Your task to perform on an android device: delete a single message in the gmail app Image 0: 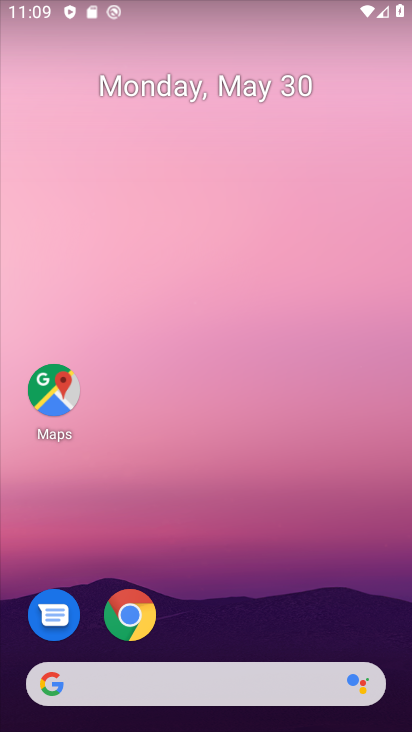
Step 0: drag from (346, 613) to (341, 98)
Your task to perform on an android device: delete a single message in the gmail app Image 1: 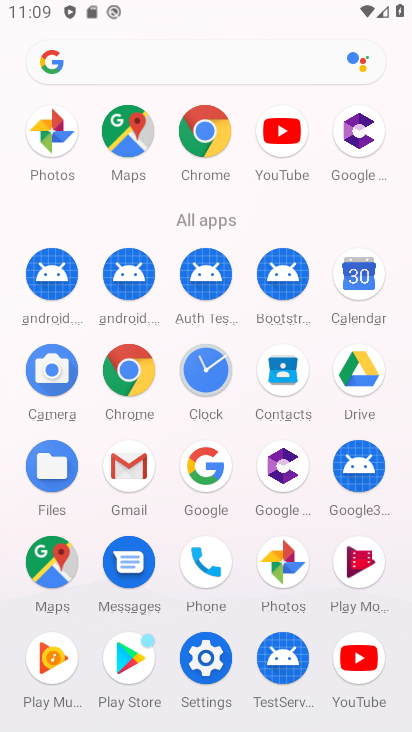
Step 1: click (113, 459)
Your task to perform on an android device: delete a single message in the gmail app Image 2: 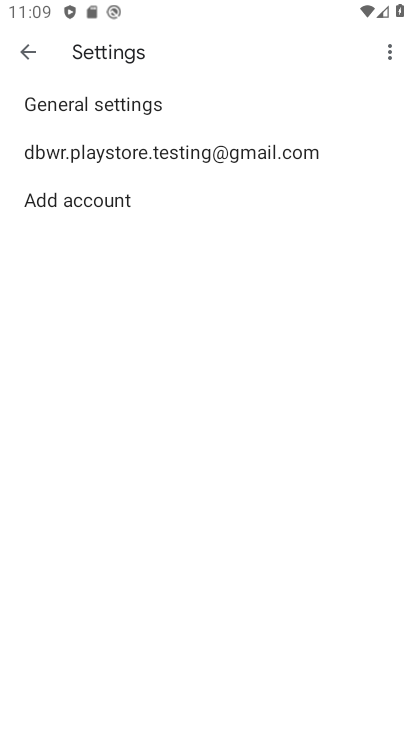
Step 2: click (30, 46)
Your task to perform on an android device: delete a single message in the gmail app Image 3: 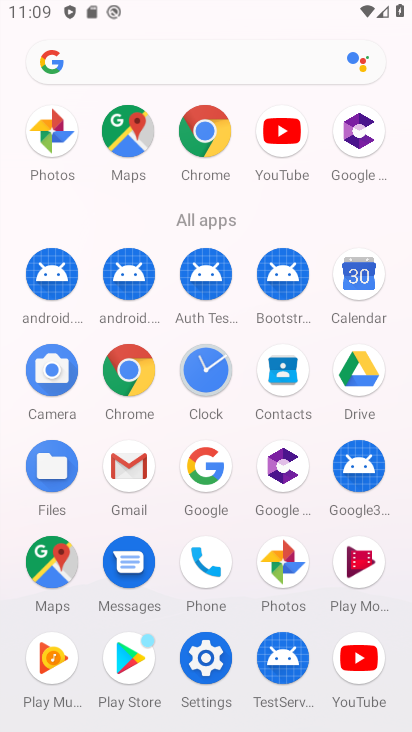
Step 3: click (137, 468)
Your task to perform on an android device: delete a single message in the gmail app Image 4: 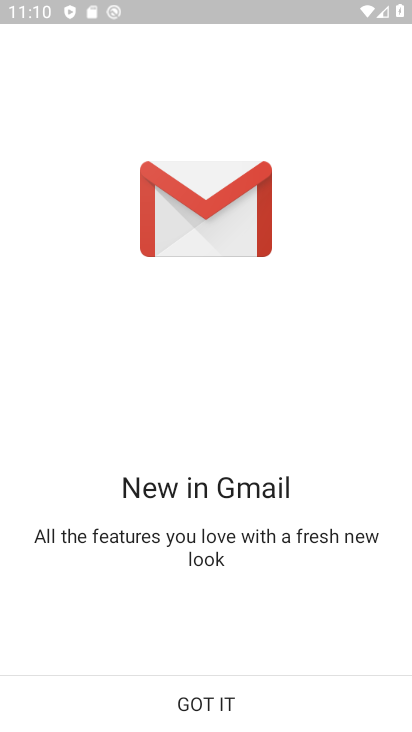
Step 4: click (237, 691)
Your task to perform on an android device: delete a single message in the gmail app Image 5: 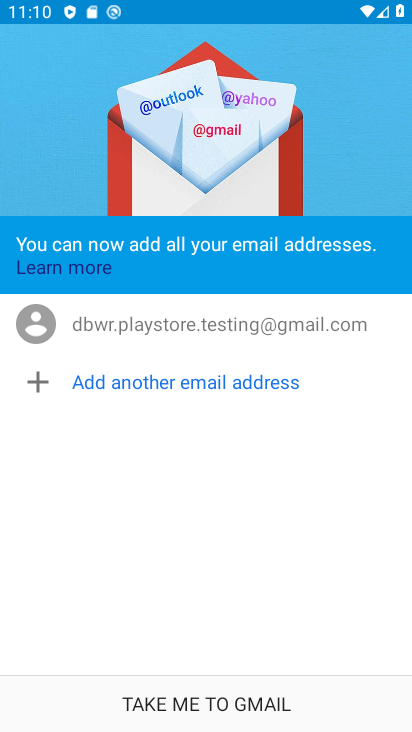
Step 5: click (262, 713)
Your task to perform on an android device: delete a single message in the gmail app Image 6: 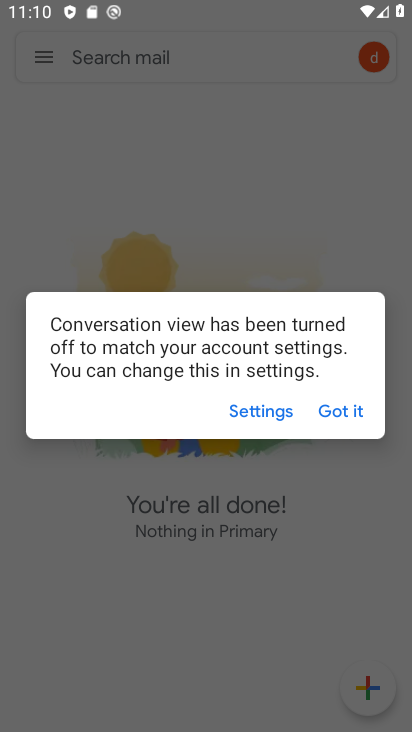
Step 6: click (308, 413)
Your task to perform on an android device: delete a single message in the gmail app Image 7: 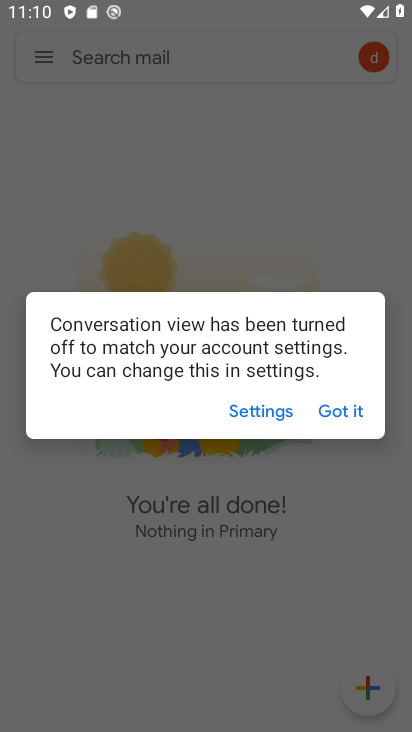
Step 7: click (353, 413)
Your task to perform on an android device: delete a single message in the gmail app Image 8: 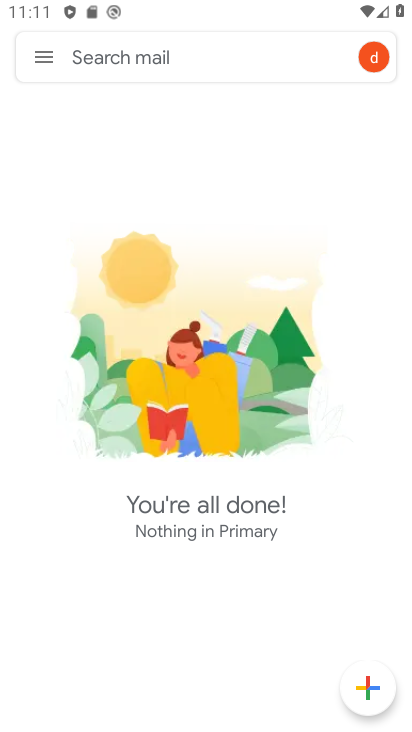
Step 8: click (329, 520)
Your task to perform on an android device: delete a single message in the gmail app Image 9: 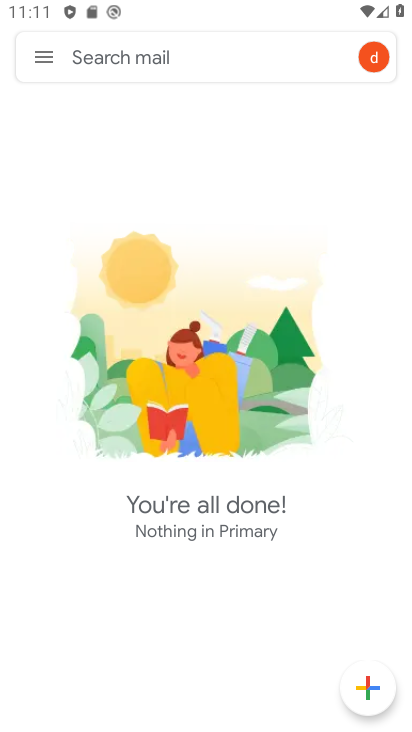
Step 9: task complete